Your task to perform on an android device: open sync settings in chrome Image 0: 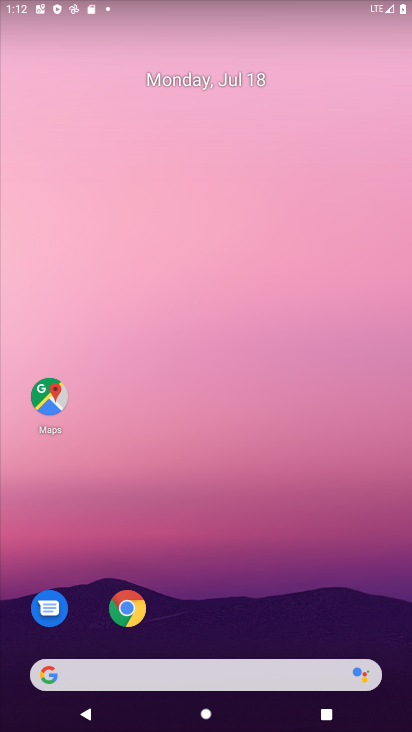
Step 0: drag from (383, 649) to (201, 53)
Your task to perform on an android device: open sync settings in chrome Image 1: 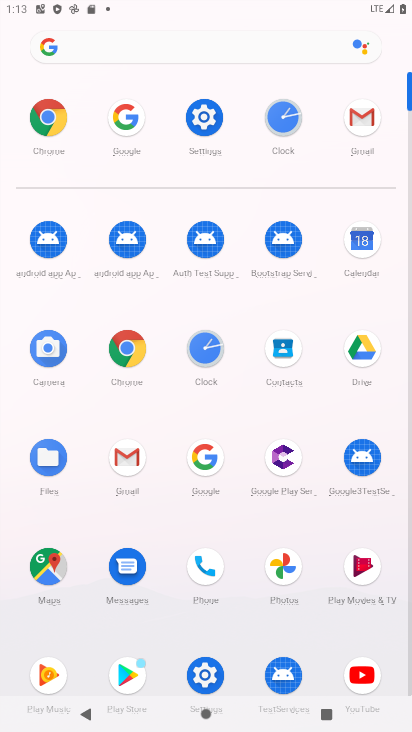
Step 1: click (142, 357)
Your task to perform on an android device: open sync settings in chrome Image 2: 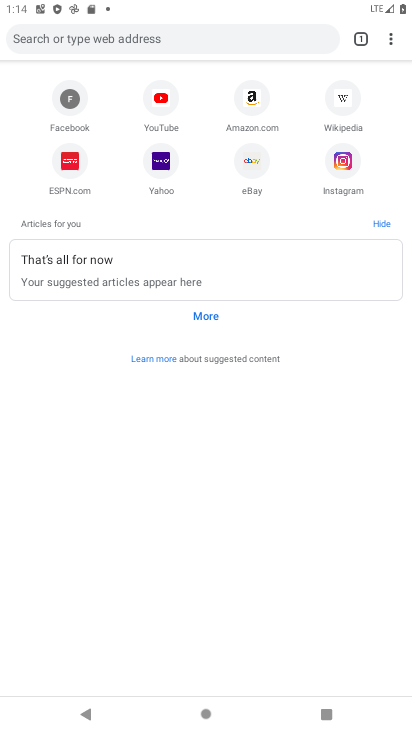
Step 2: click (395, 41)
Your task to perform on an android device: open sync settings in chrome Image 3: 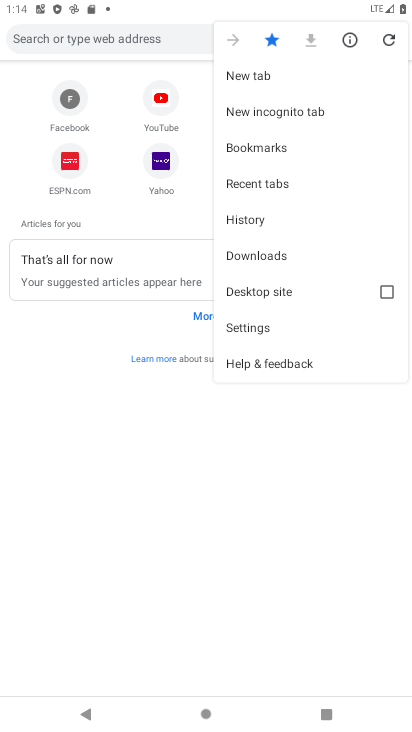
Step 3: click (268, 332)
Your task to perform on an android device: open sync settings in chrome Image 4: 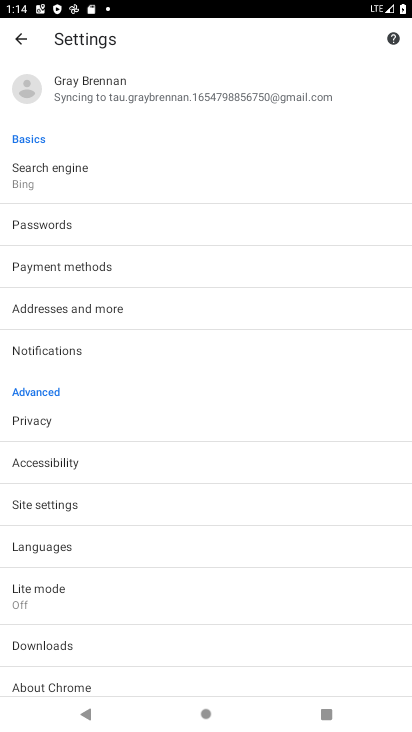
Step 4: click (80, 504)
Your task to perform on an android device: open sync settings in chrome Image 5: 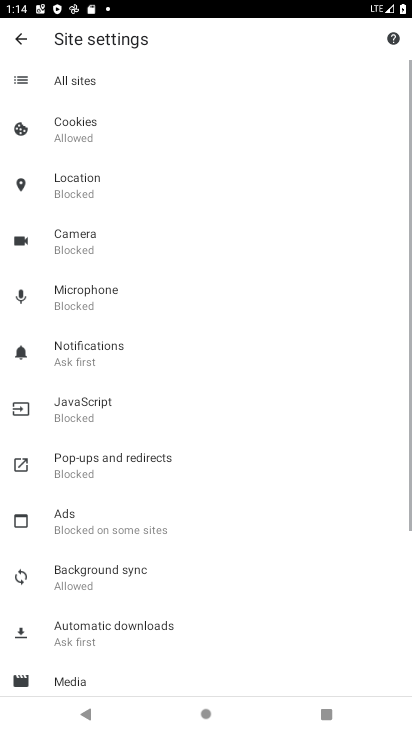
Step 5: click (129, 578)
Your task to perform on an android device: open sync settings in chrome Image 6: 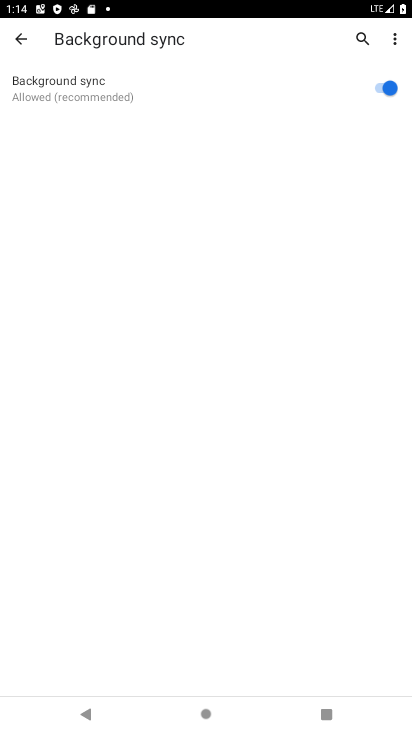
Step 6: task complete